Your task to perform on an android device: Go to battery settings Image 0: 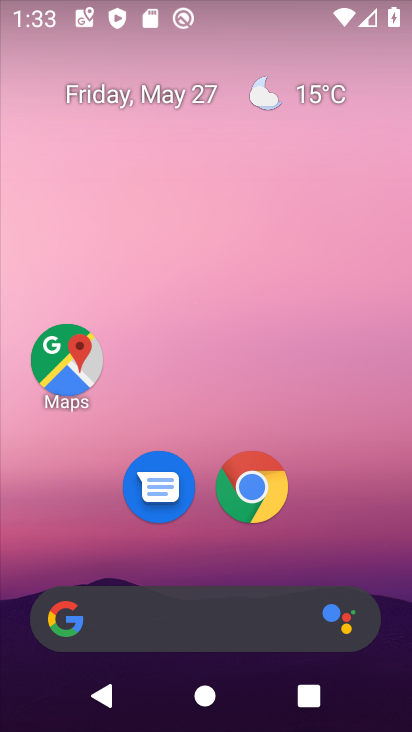
Step 0: drag from (210, 566) to (190, 39)
Your task to perform on an android device: Go to battery settings Image 1: 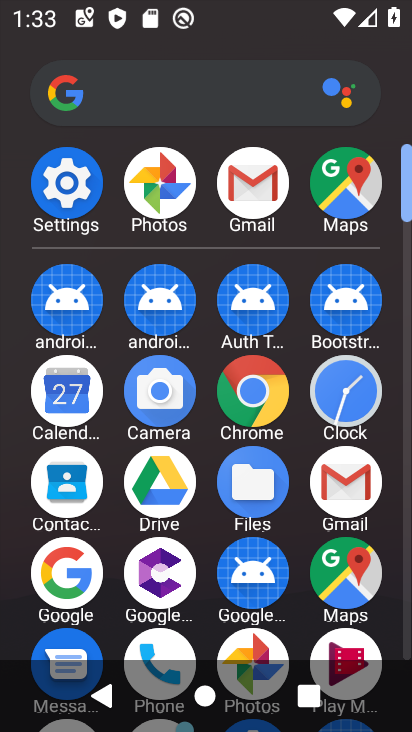
Step 1: click (63, 205)
Your task to perform on an android device: Go to battery settings Image 2: 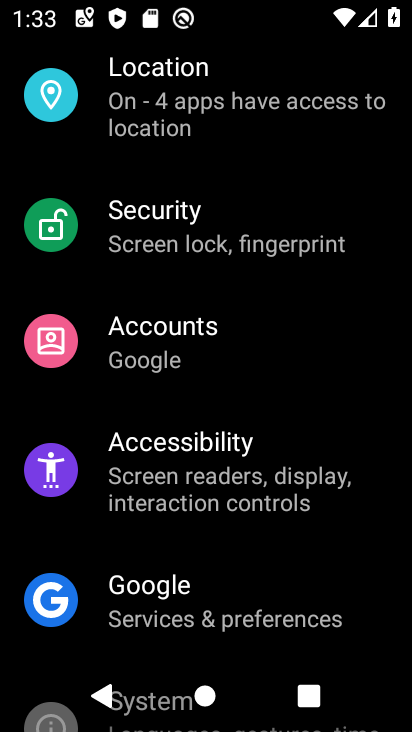
Step 2: drag from (219, 528) to (250, 235)
Your task to perform on an android device: Go to battery settings Image 3: 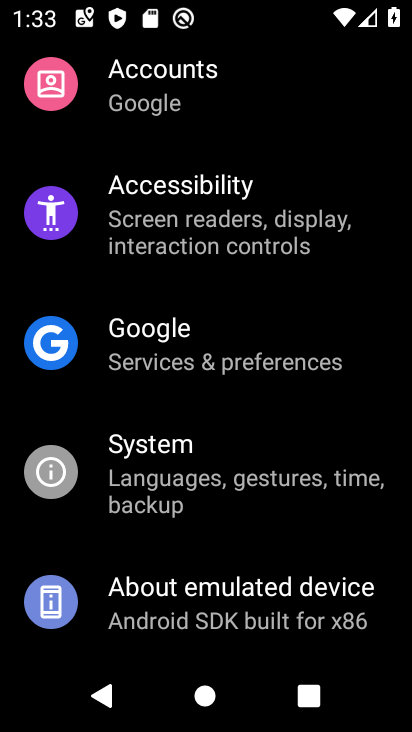
Step 3: drag from (244, 147) to (226, 601)
Your task to perform on an android device: Go to battery settings Image 4: 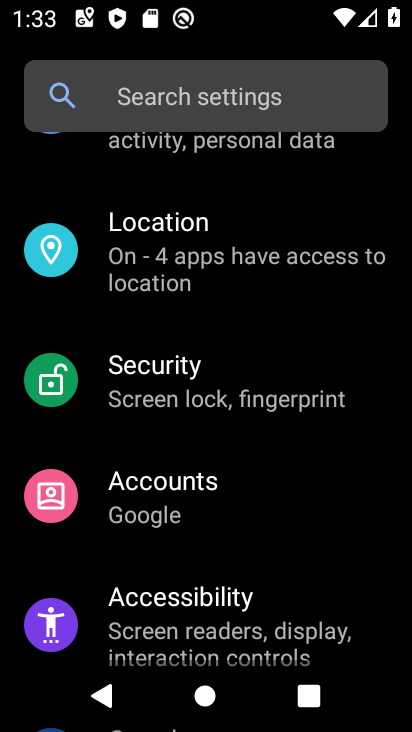
Step 4: drag from (220, 212) to (218, 612)
Your task to perform on an android device: Go to battery settings Image 5: 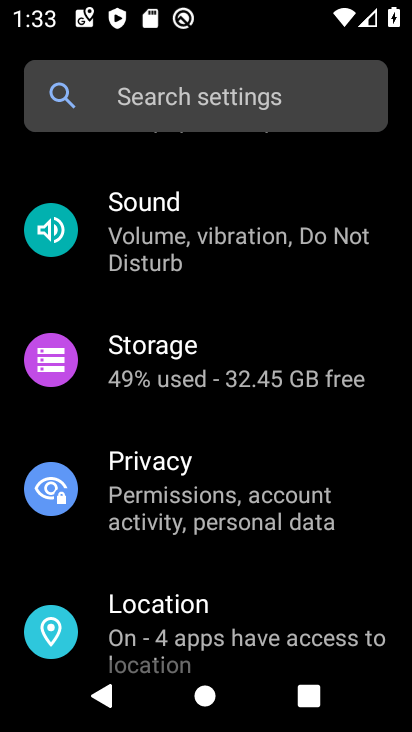
Step 5: drag from (165, 536) to (213, 258)
Your task to perform on an android device: Go to battery settings Image 6: 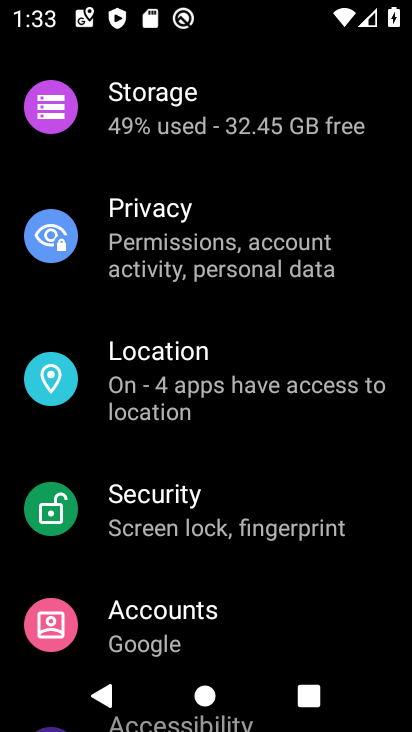
Step 6: drag from (304, 137) to (266, 609)
Your task to perform on an android device: Go to battery settings Image 7: 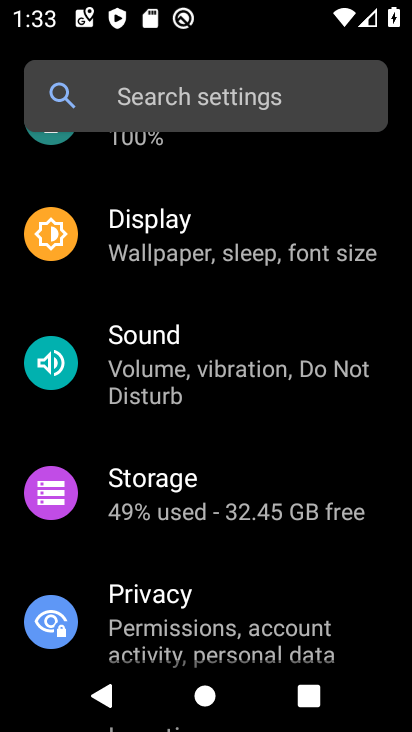
Step 7: drag from (258, 191) to (229, 575)
Your task to perform on an android device: Go to battery settings Image 8: 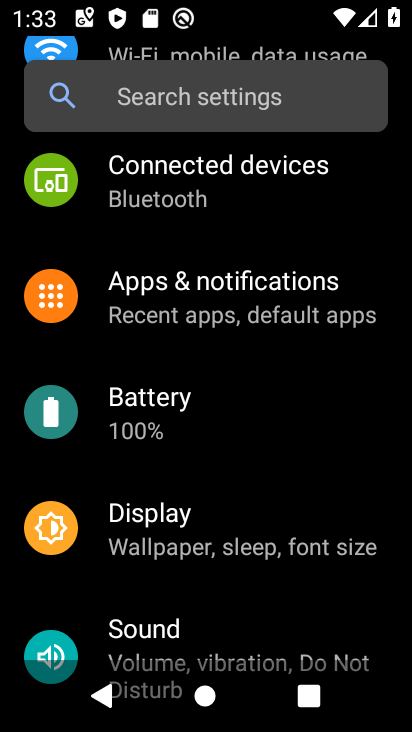
Step 8: click (197, 449)
Your task to perform on an android device: Go to battery settings Image 9: 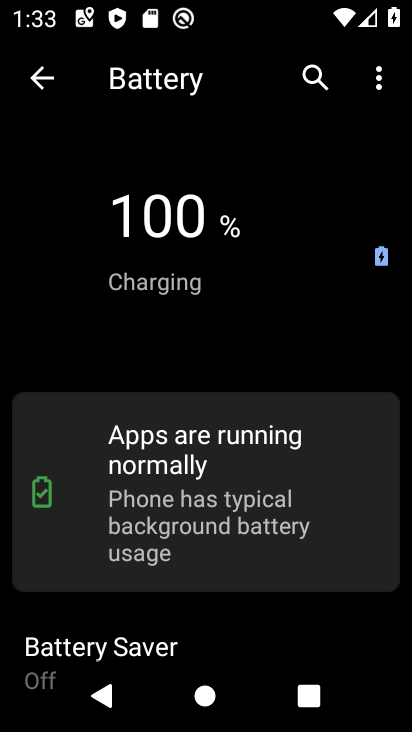
Step 9: task complete